Your task to perform on an android device: Search for vegetarian restaurants on Maps Image 0: 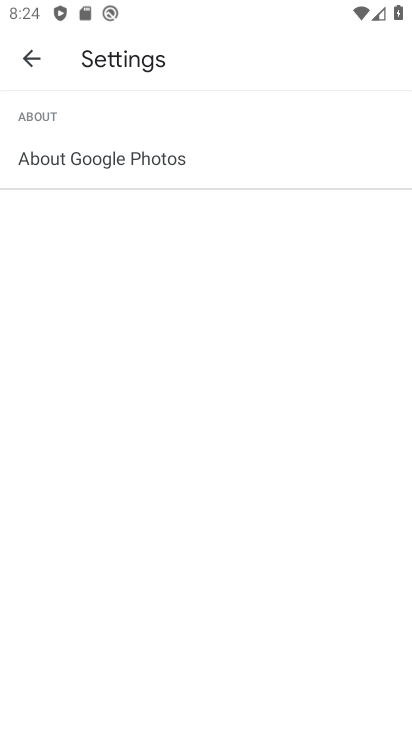
Step 0: drag from (323, 575) to (309, 535)
Your task to perform on an android device: Search for vegetarian restaurants on Maps Image 1: 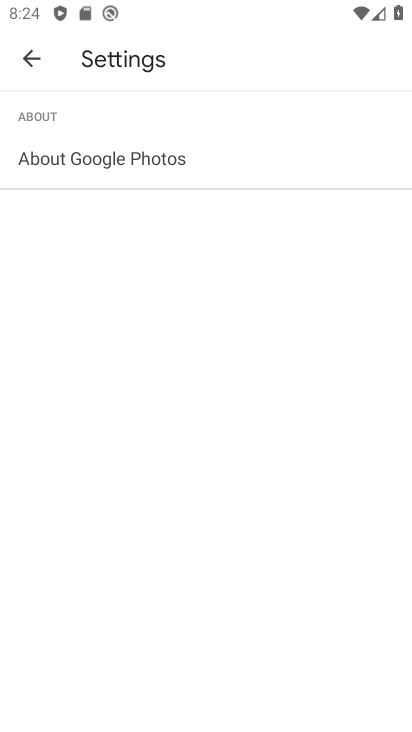
Step 1: press home button
Your task to perform on an android device: Search for vegetarian restaurants on Maps Image 2: 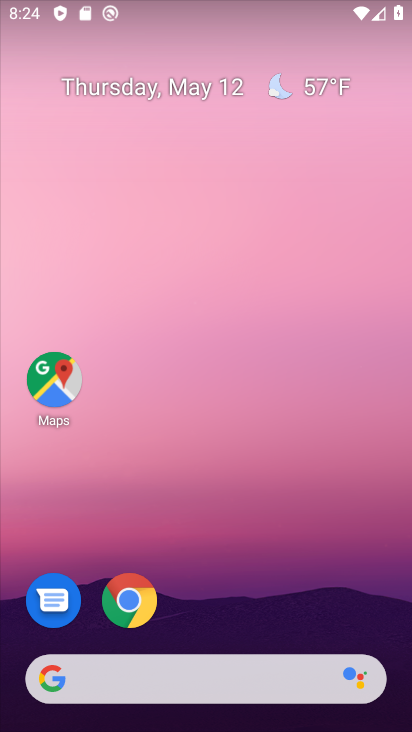
Step 2: drag from (354, 551) to (357, 216)
Your task to perform on an android device: Search for vegetarian restaurants on Maps Image 3: 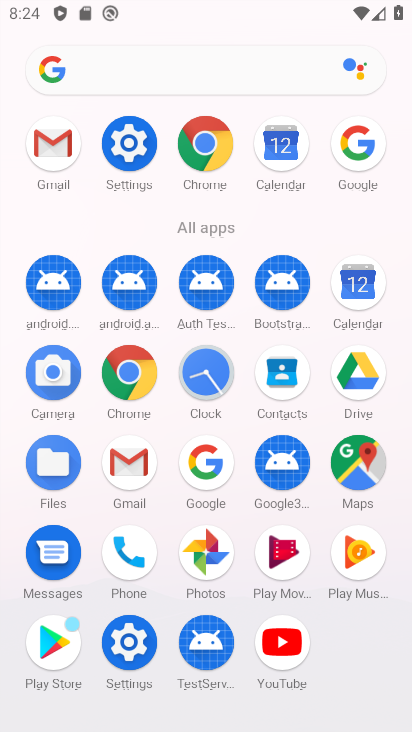
Step 3: click (208, 158)
Your task to perform on an android device: Search for vegetarian restaurants on Maps Image 4: 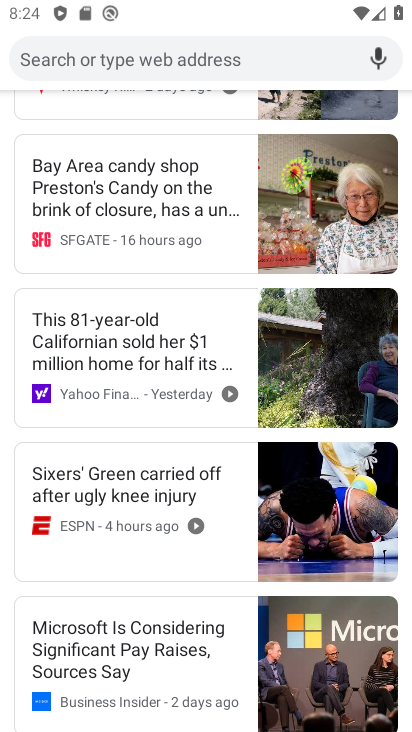
Step 4: drag from (165, 185) to (199, 522)
Your task to perform on an android device: Search for vegetarian restaurants on Maps Image 5: 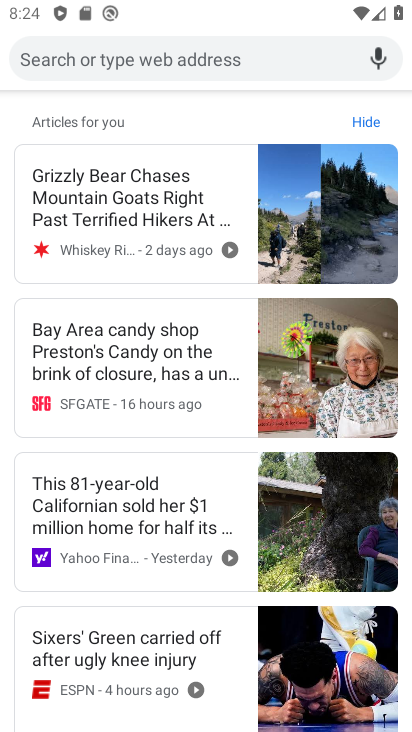
Step 5: press home button
Your task to perform on an android device: Search for vegetarian restaurants on Maps Image 6: 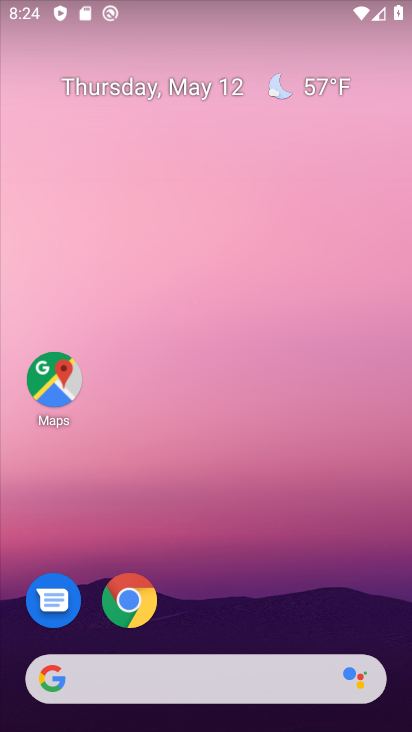
Step 6: drag from (254, 564) to (263, 171)
Your task to perform on an android device: Search for vegetarian restaurants on Maps Image 7: 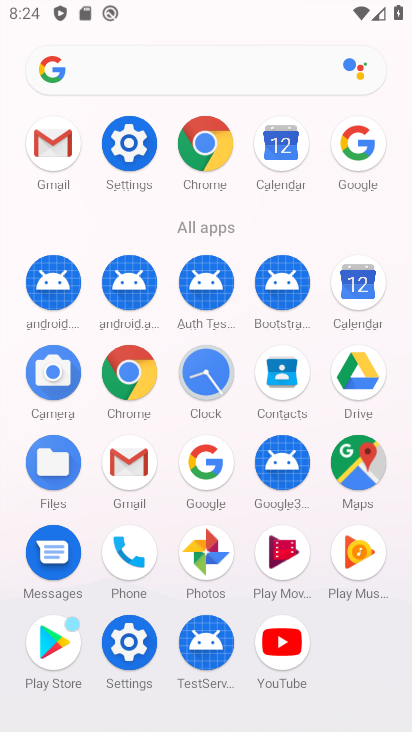
Step 7: click (368, 458)
Your task to perform on an android device: Search for vegetarian restaurants on Maps Image 8: 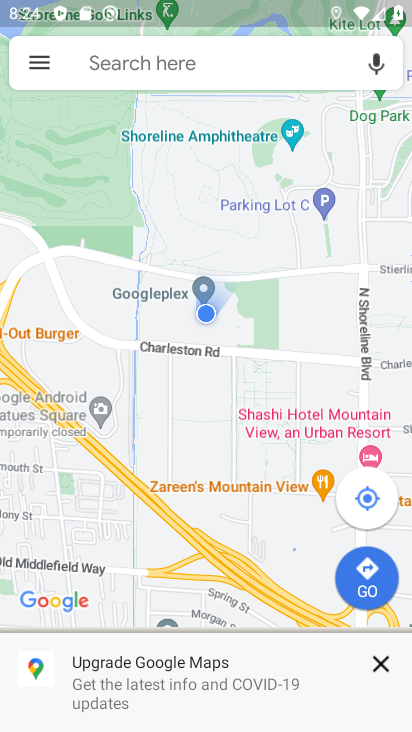
Step 8: click (193, 74)
Your task to perform on an android device: Search for vegetarian restaurants on Maps Image 9: 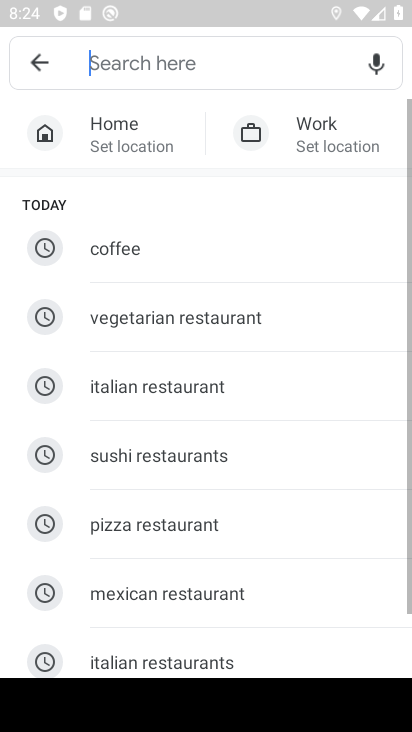
Step 9: click (281, 319)
Your task to perform on an android device: Search for vegetarian restaurants on Maps Image 10: 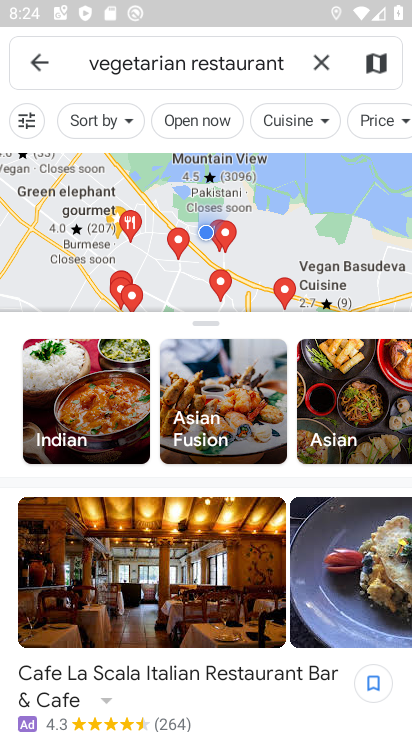
Step 10: task complete